Your task to perform on an android device: turn on notifications settings in the gmail app Image 0: 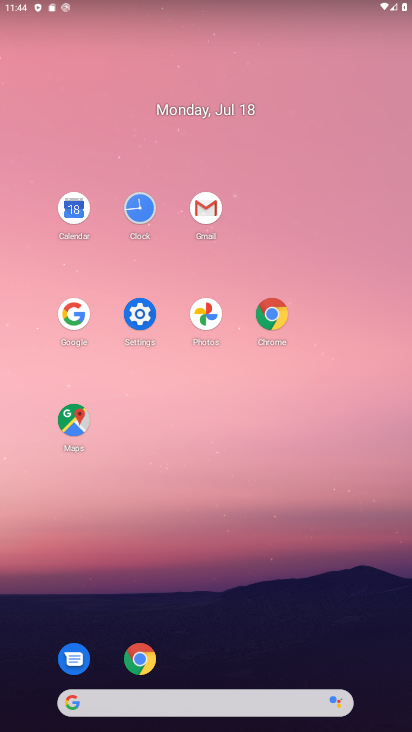
Step 0: click (215, 214)
Your task to perform on an android device: turn on notifications settings in the gmail app Image 1: 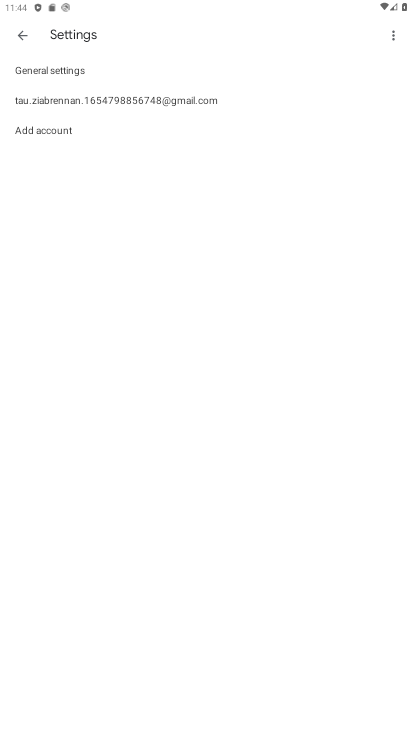
Step 1: click (137, 110)
Your task to perform on an android device: turn on notifications settings in the gmail app Image 2: 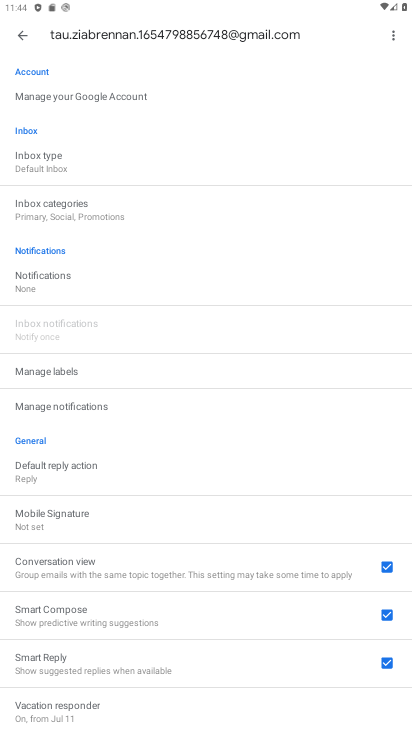
Step 2: click (53, 268)
Your task to perform on an android device: turn on notifications settings in the gmail app Image 3: 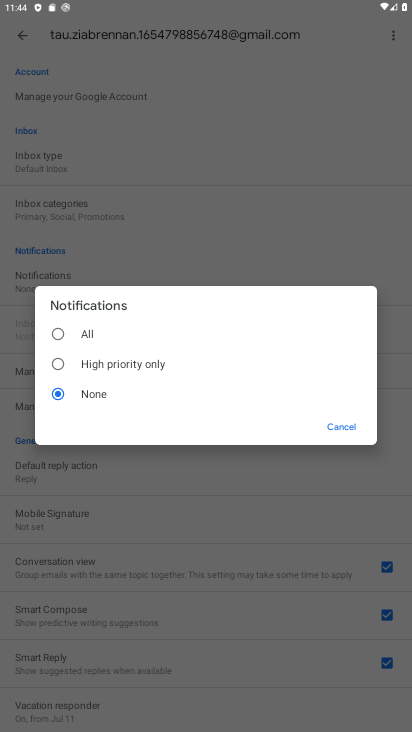
Step 3: click (61, 327)
Your task to perform on an android device: turn on notifications settings in the gmail app Image 4: 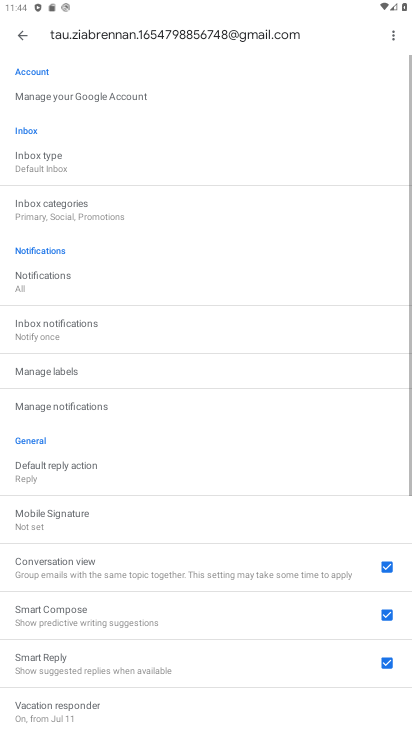
Step 4: task complete